Your task to perform on an android device: see creations saved in the google photos Image 0: 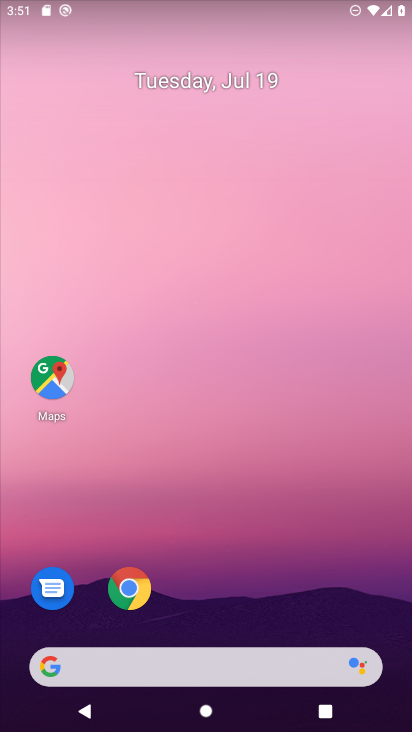
Step 0: drag from (205, 602) to (174, 2)
Your task to perform on an android device: see creations saved in the google photos Image 1: 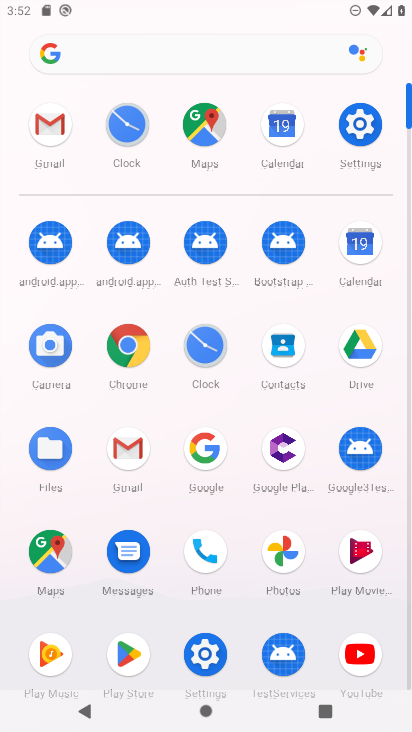
Step 1: click (276, 546)
Your task to perform on an android device: see creations saved in the google photos Image 2: 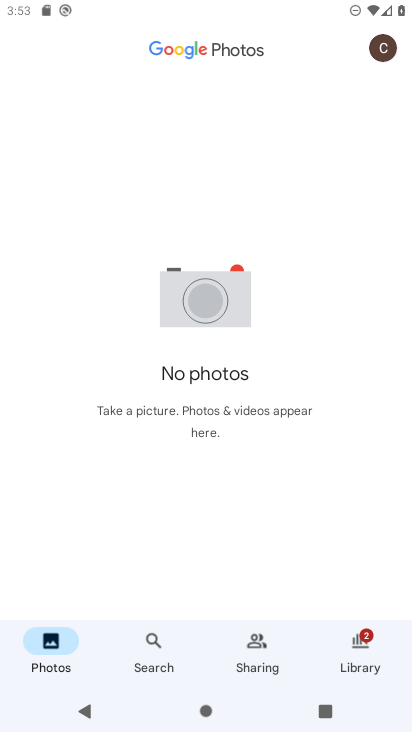
Step 2: click (143, 655)
Your task to perform on an android device: see creations saved in the google photos Image 3: 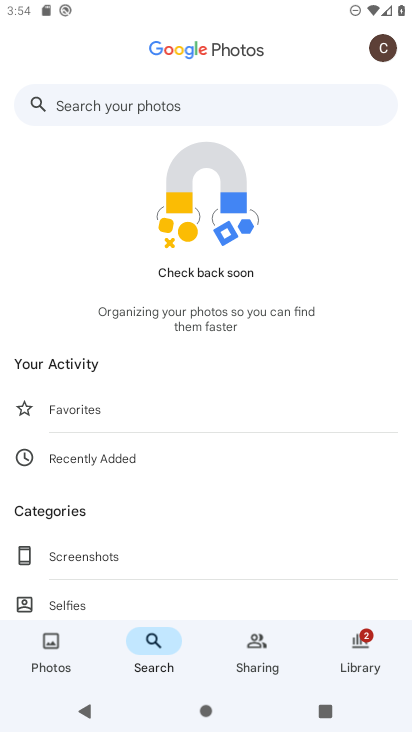
Step 3: click (134, 101)
Your task to perform on an android device: see creations saved in the google photos Image 4: 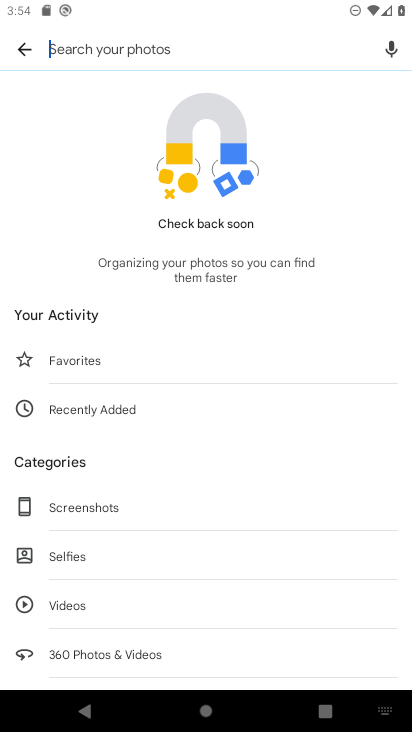
Step 4: drag from (167, 522) to (203, 228)
Your task to perform on an android device: see creations saved in the google photos Image 5: 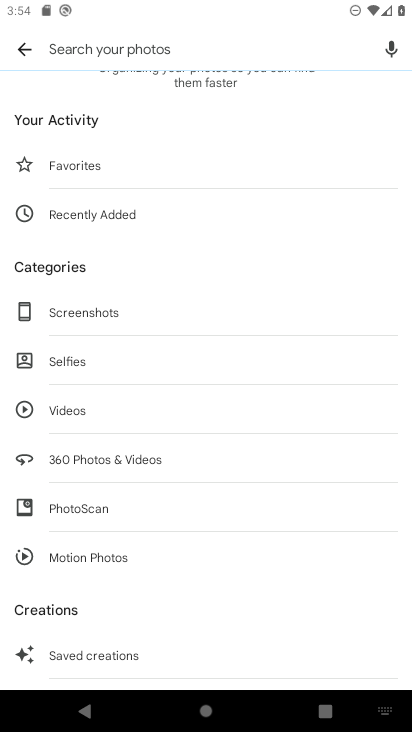
Step 5: click (117, 652)
Your task to perform on an android device: see creations saved in the google photos Image 6: 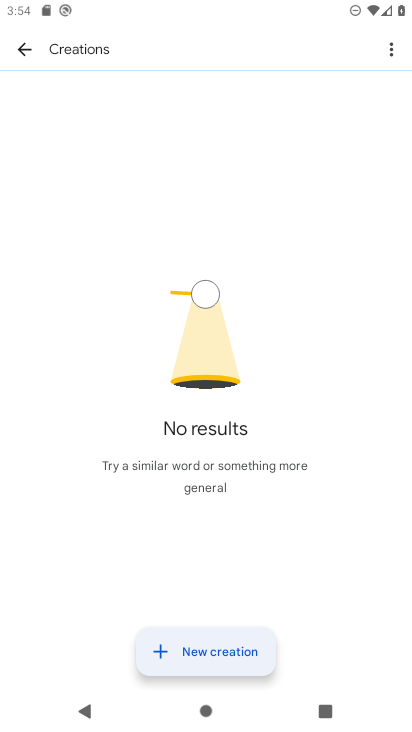
Step 6: task complete